Your task to perform on an android device: see creations saved in the google photos Image 0: 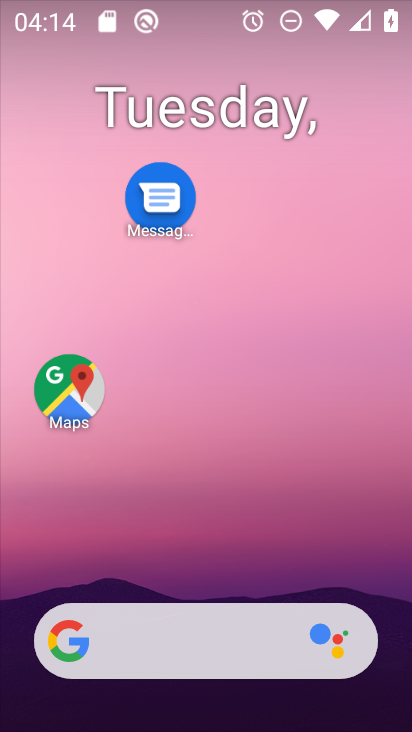
Step 0: drag from (215, 547) to (260, 205)
Your task to perform on an android device: see creations saved in the google photos Image 1: 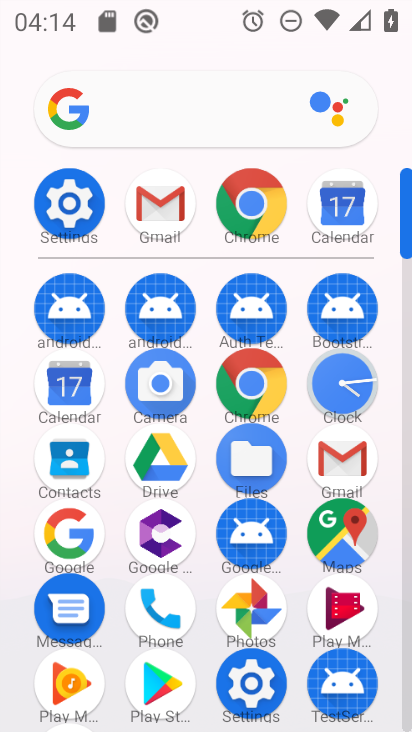
Step 1: click (258, 584)
Your task to perform on an android device: see creations saved in the google photos Image 2: 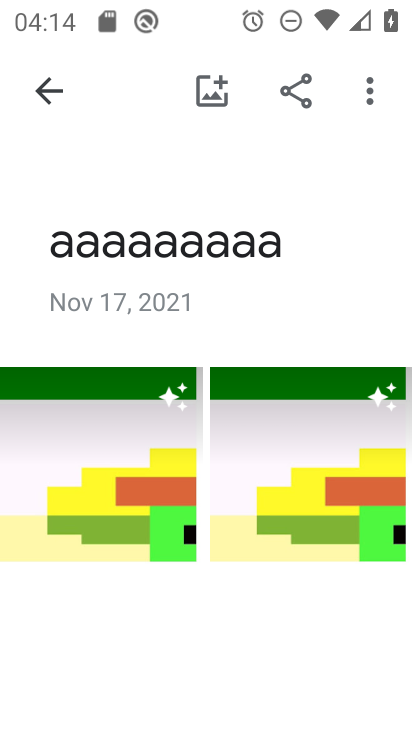
Step 2: click (62, 86)
Your task to perform on an android device: see creations saved in the google photos Image 3: 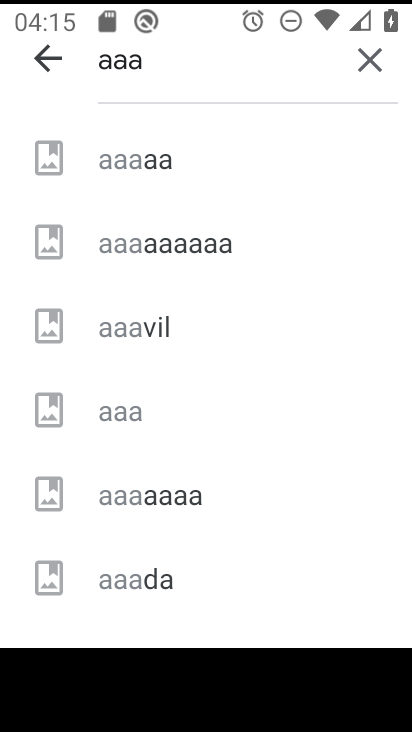
Step 3: click (65, 60)
Your task to perform on an android device: see creations saved in the google photos Image 4: 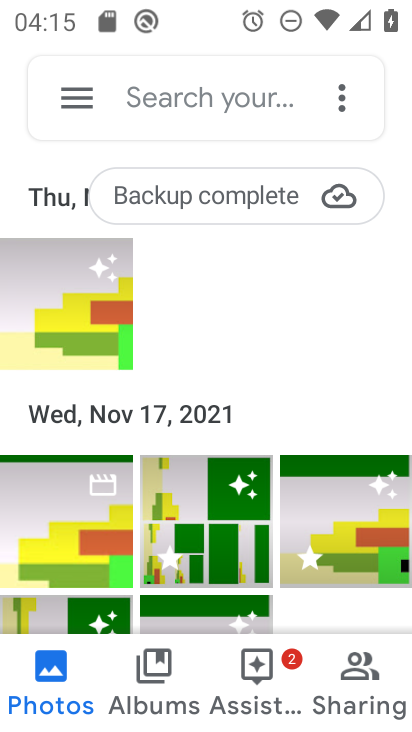
Step 4: click (142, 96)
Your task to perform on an android device: see creations saved in the google photos Image 5: 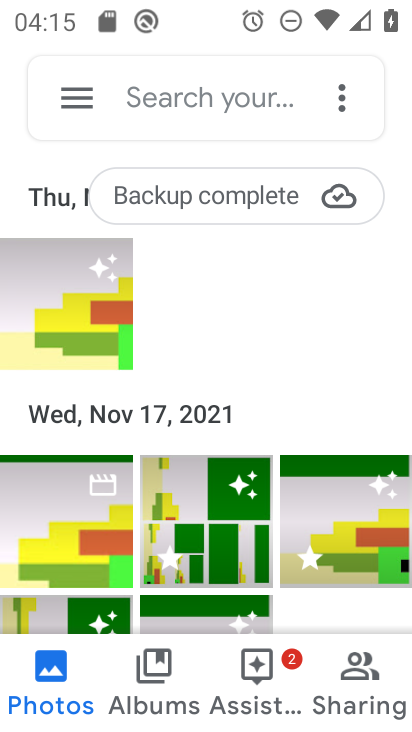
Step 5: click (143, 97)
Your task to perform on an android device: see creations saved in the google photos Image 6: 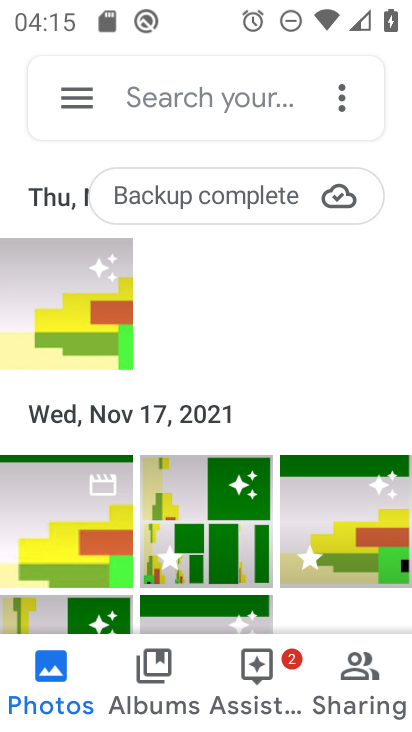
Step 6: click (172, 101)
Your task to perform on an android device: see creations saved in the google photos Image 7: 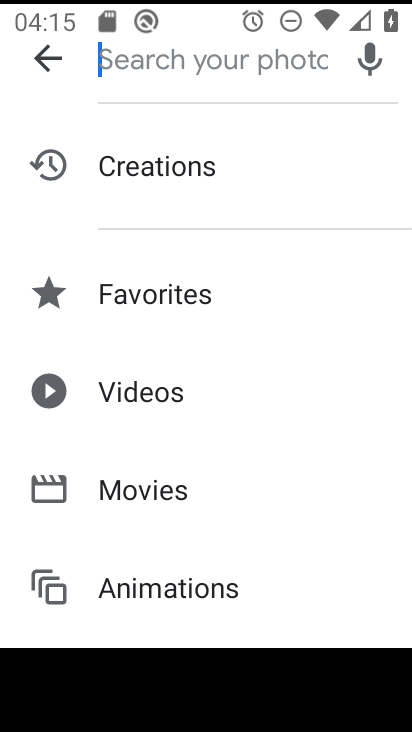
Step 7: click (136, 170)
Your task to perform on an android device: see creations saved in the google photos Image 8: 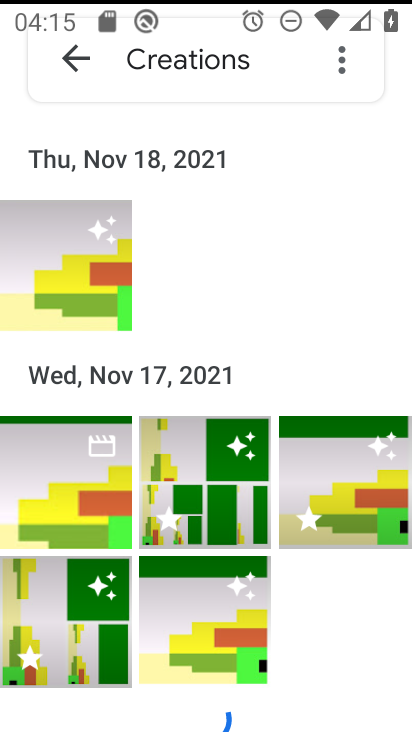
Step 8: task complete